Your task to perform on an android device: Search for "dell xps" on costco.com, select the first entry, add it to the cart, then select checkout. Image 0: 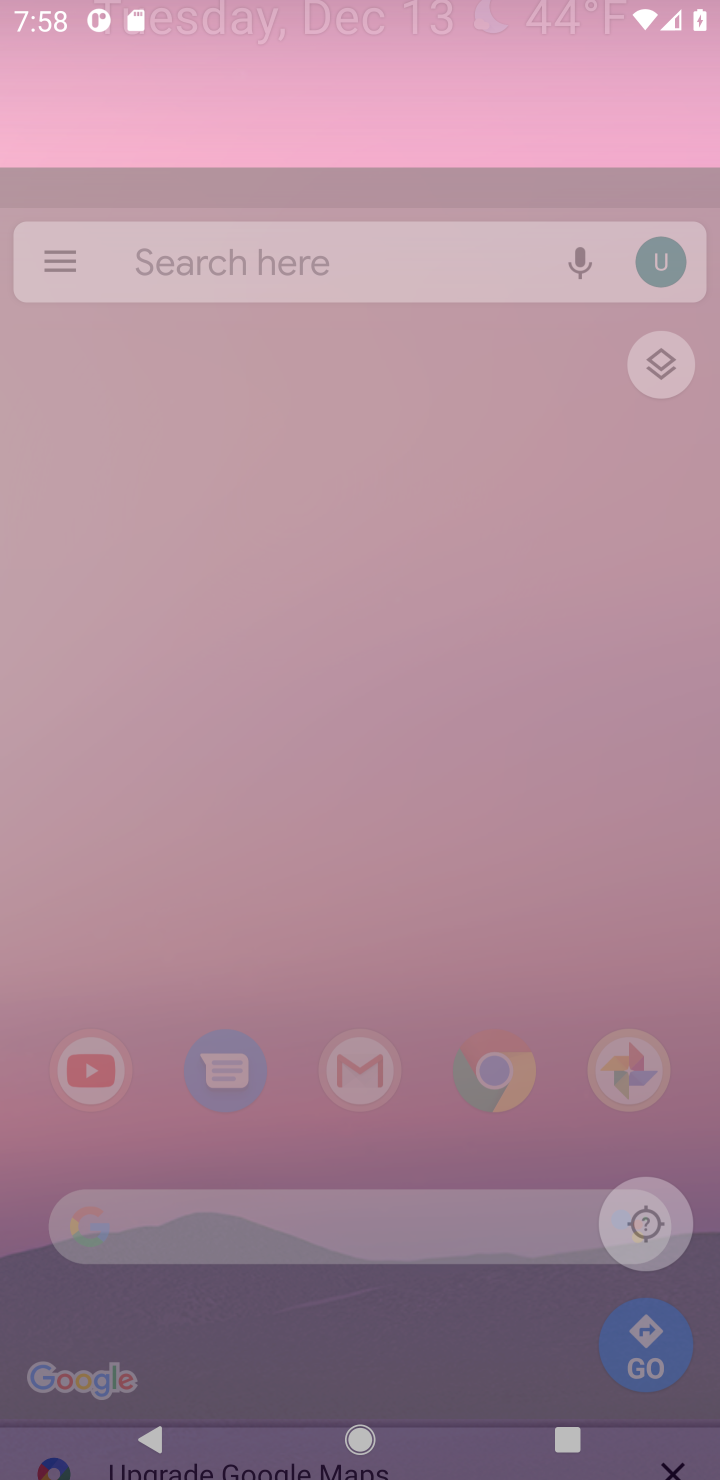
Step 0: click (496, 1211)
Your task to perform on an android device: Search for "dell xps" on costco.com, select the first entry, add it to the cart, then select checkout. Image 1: 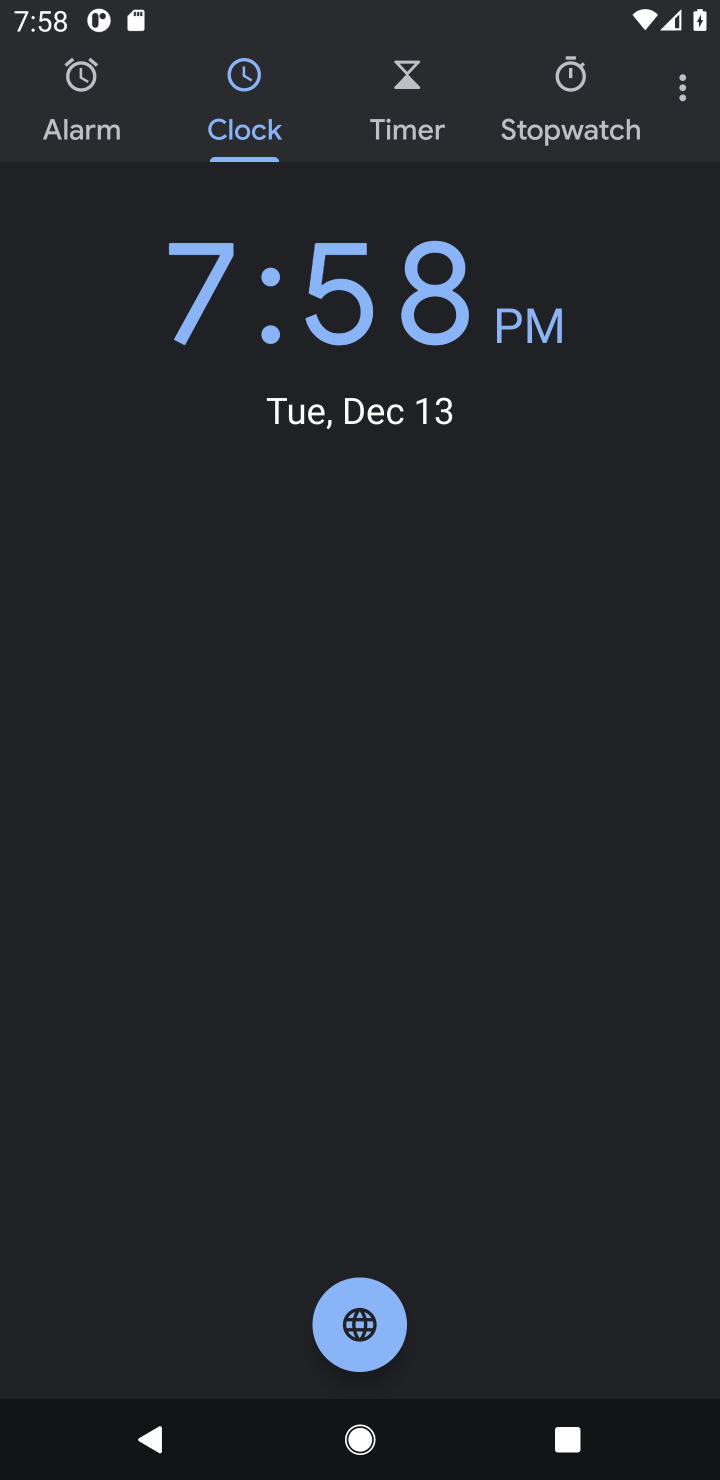
Step 1: press home button
Your task to perform on an android device: Search for "dell xps" on costco.com, select the first entry, add it to the cart, then select checkout. Image 2: 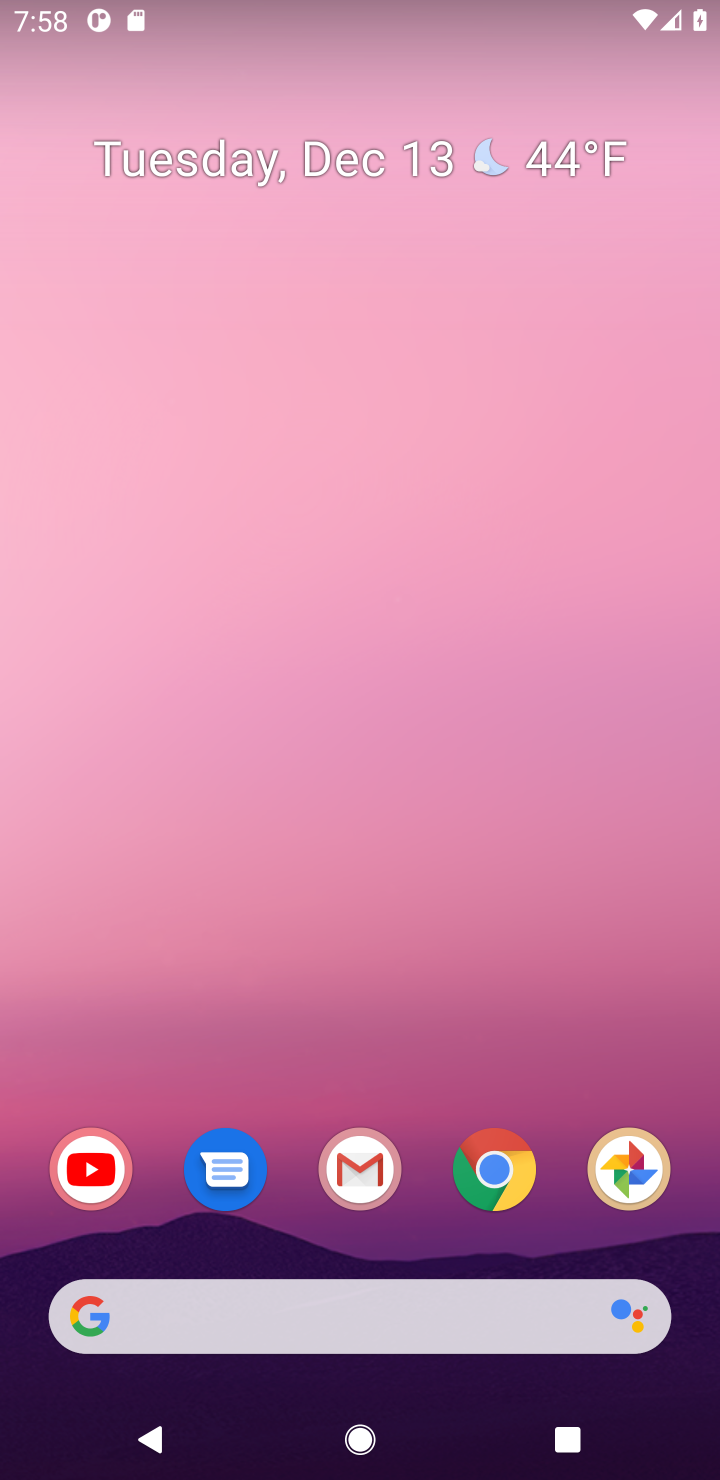
Step 2: click (497, 1156)
Your task to perform on an android device: Search for "dell xps" on costco.com, select the first entry, add it to the cart, then select checkout. Image 3: 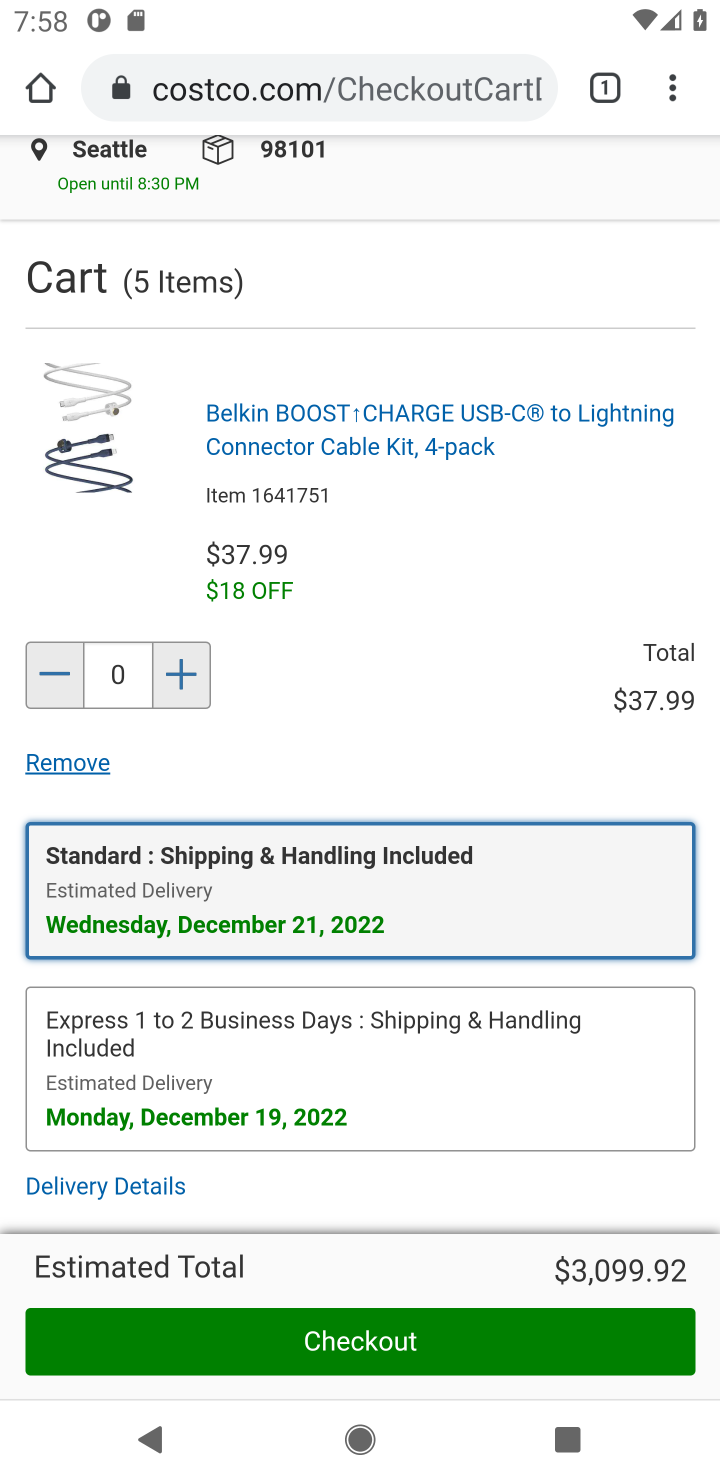
Step 3: click (60, 107)
Your task to perform on an android device: Search for "dell xps" on costco.com, select the first entry, add it to the cart, then select checkout. Image 4: 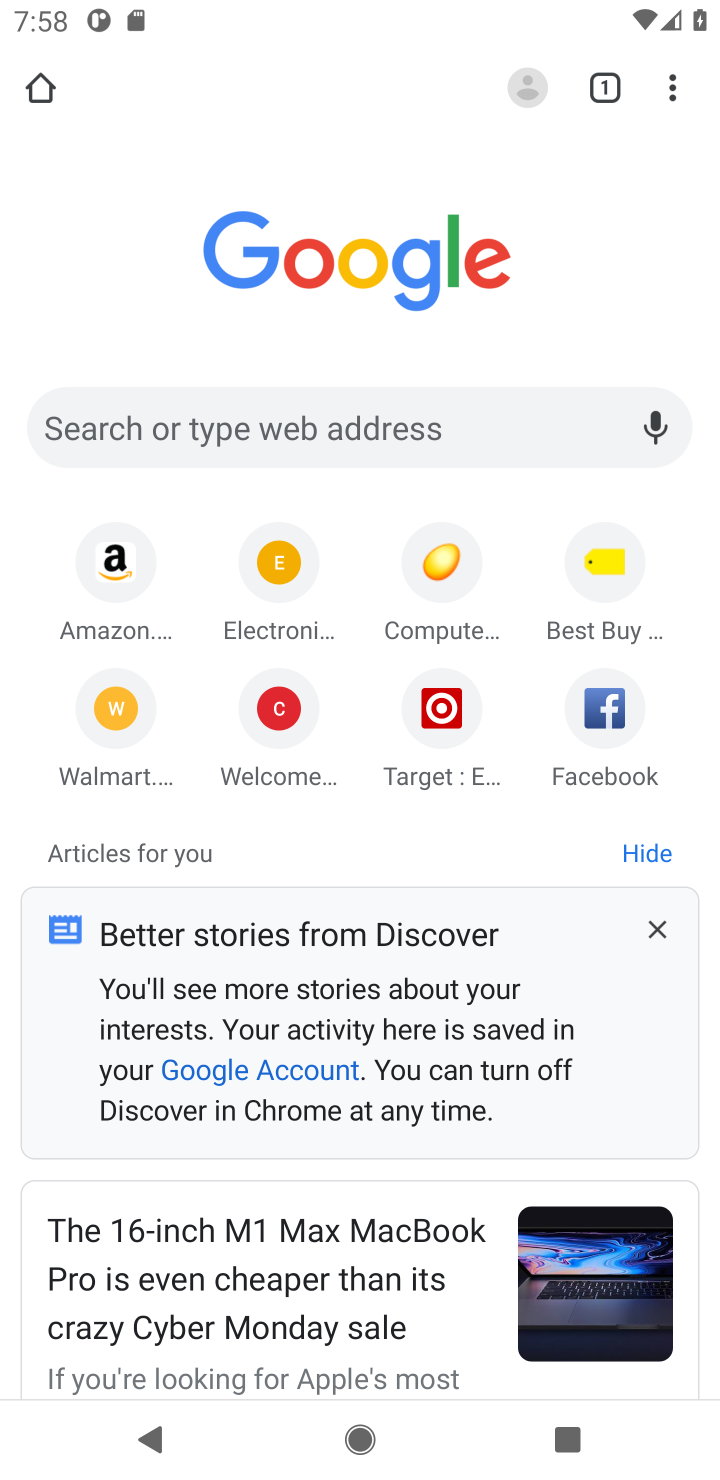
Step 4: click (307, 444)
Your task to perform on an android device: Search for "dell xps" on costco.com, select the first entry, add it to the cart, then select checkout. Image 5: 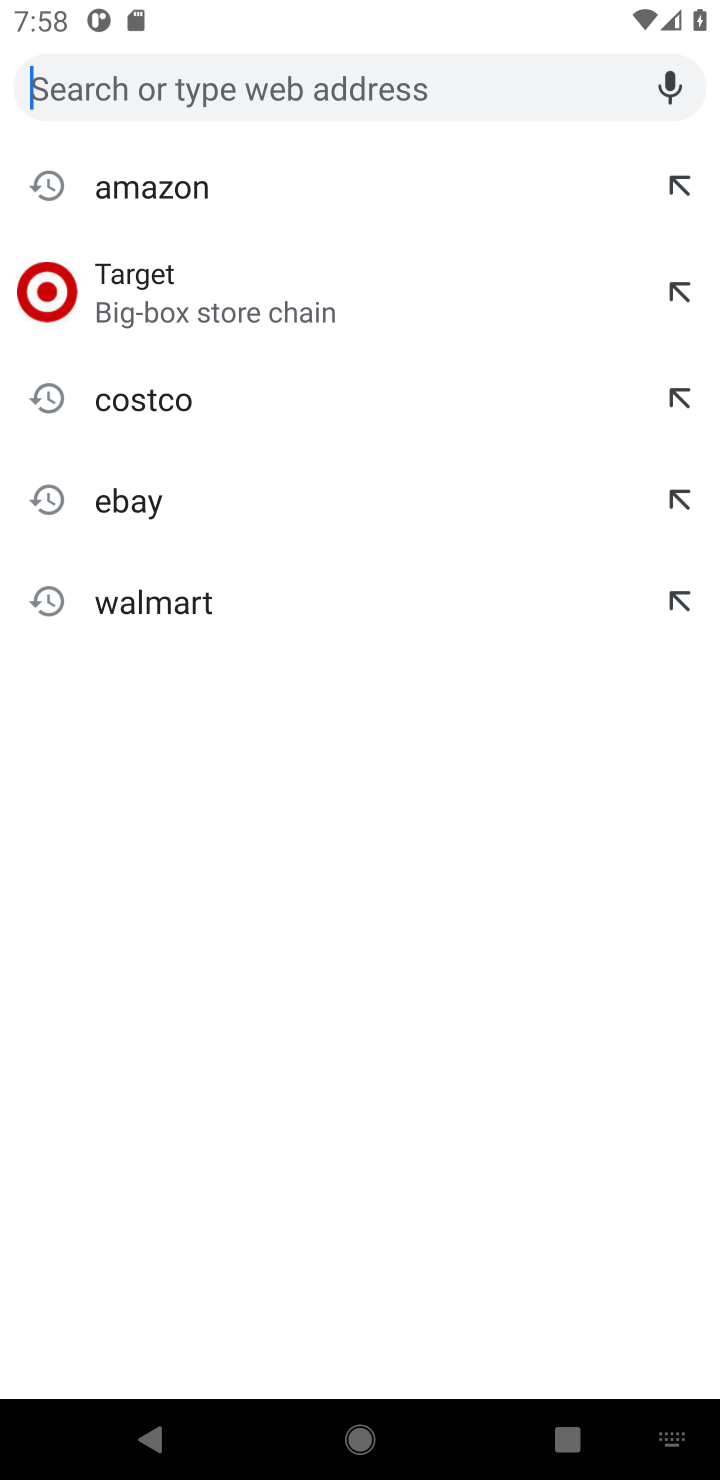
Step 5: click (144, 396)
Your task to perform on an android device: Search for "dell xps" on costco.com, select the first entry, add it to the cart, then select checkout. Image 6: 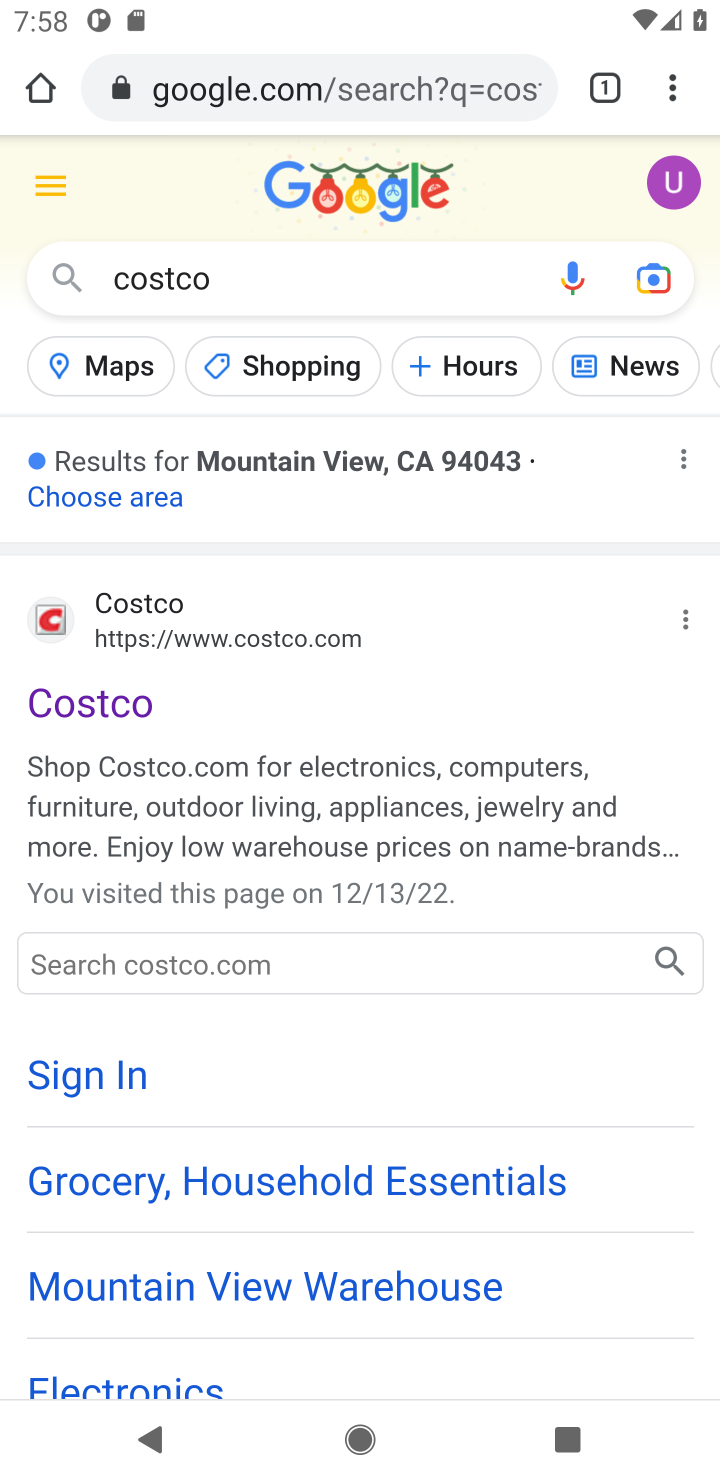
Step 6: click (137, 694)
Your task to perform on an android device: Search for "dell xps" on costco.com, select the first entry, add it to the cart, then select checkout. Image 7: 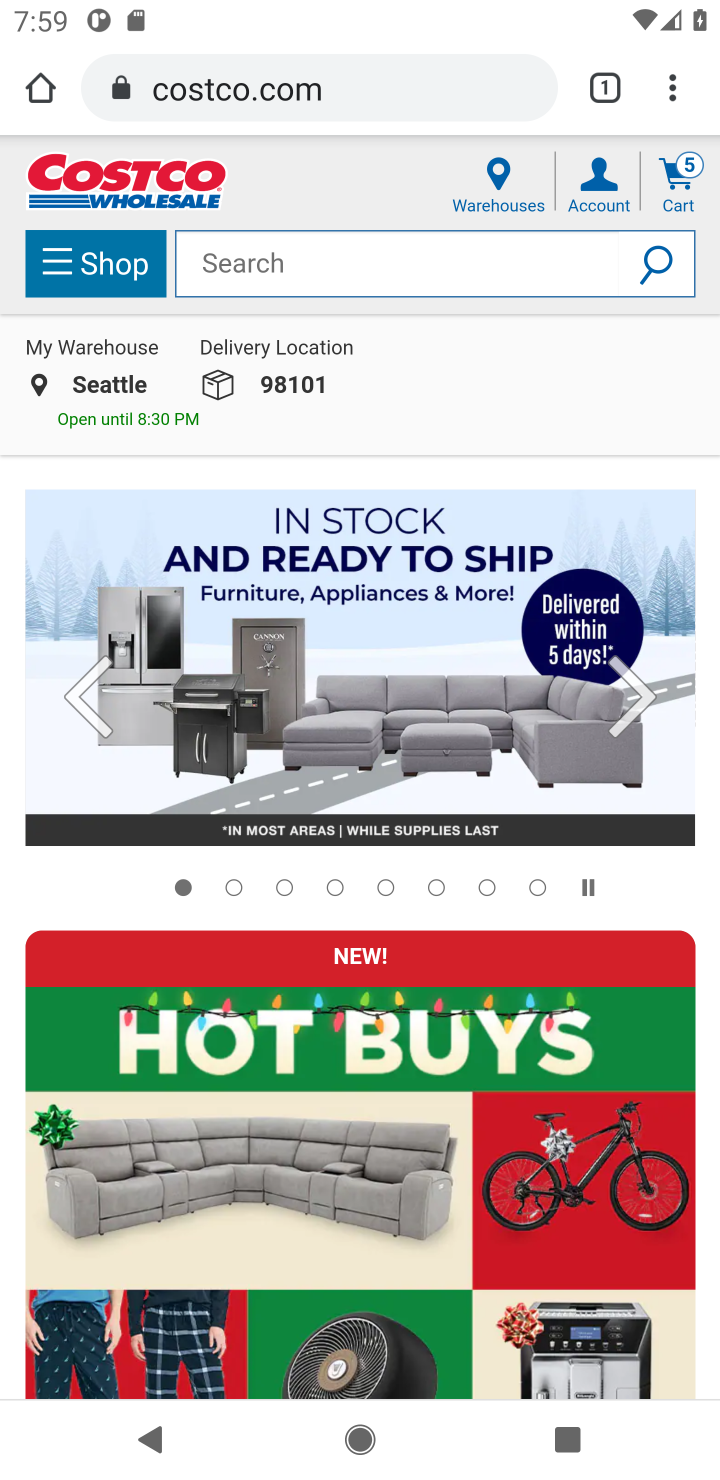
Step 7: click (300, 285)
Your task to perform on an android device: Search for "dell xps" on costco.com, select the first entry, add it to the cart, then select checkout. Image 8: 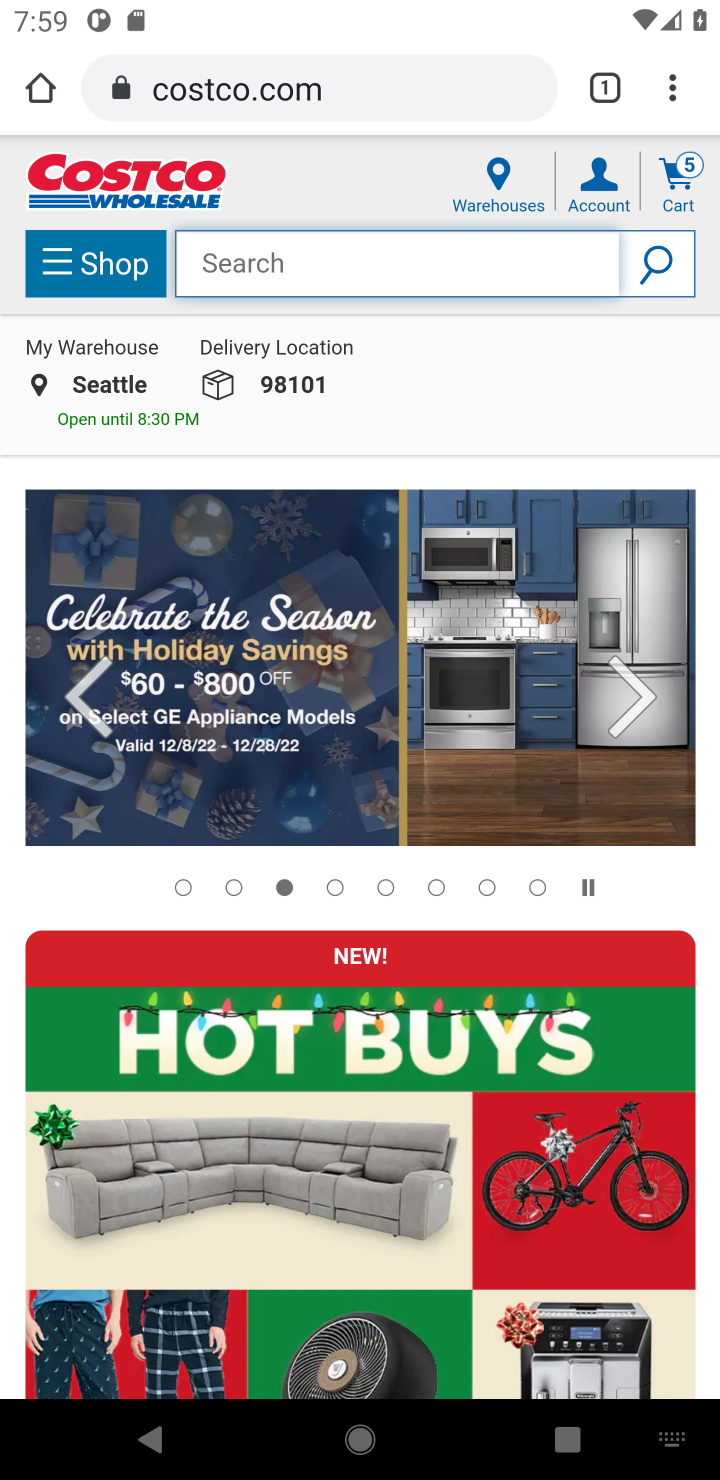
Step 8: type "dell xps"
Your task to perform on an android device: Search for "dell xps" on costco.com, select the first entry, add it to the cart, then select checkout. Image 9: 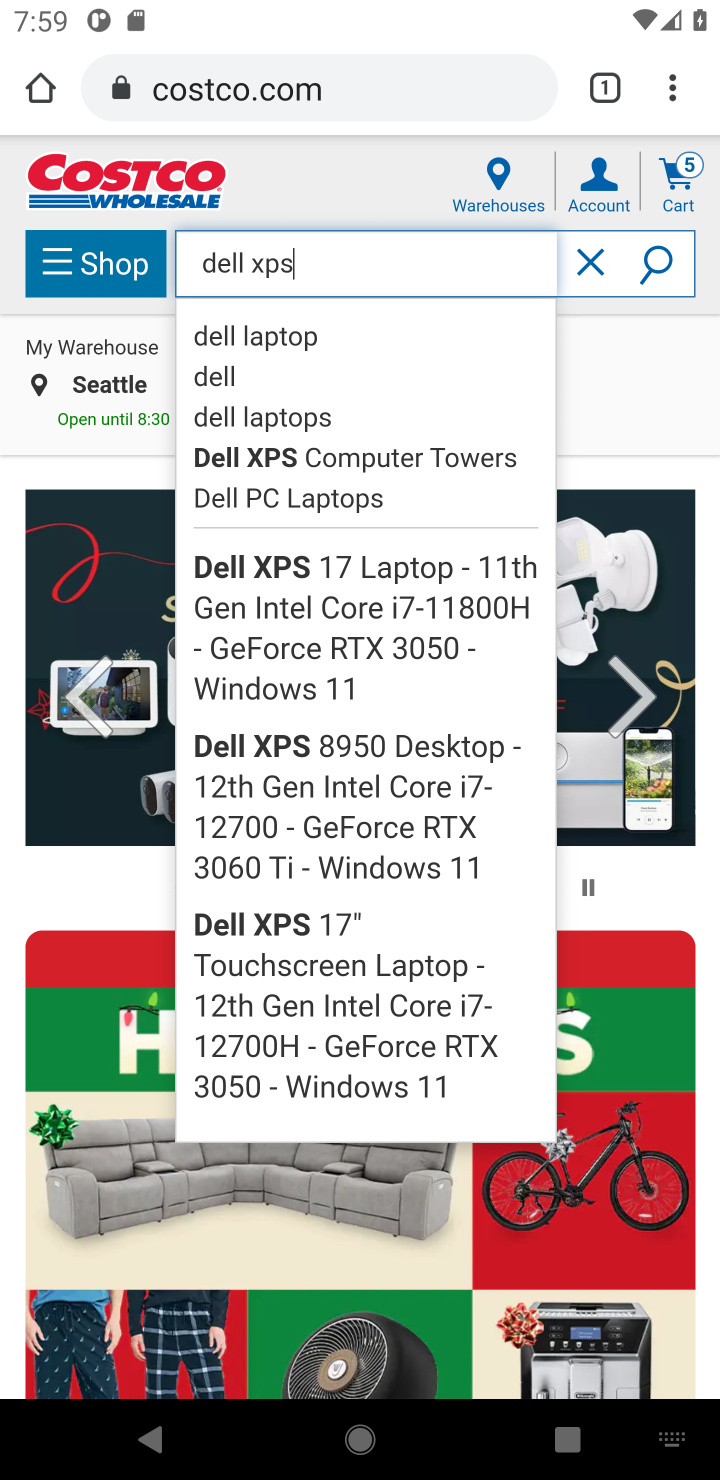
Step 9: click (682, 270)
Your task to perform on an android device: Search for "dell xps" on costco.com, select the first entry, add it to the cart, then select checkout. Image 10: 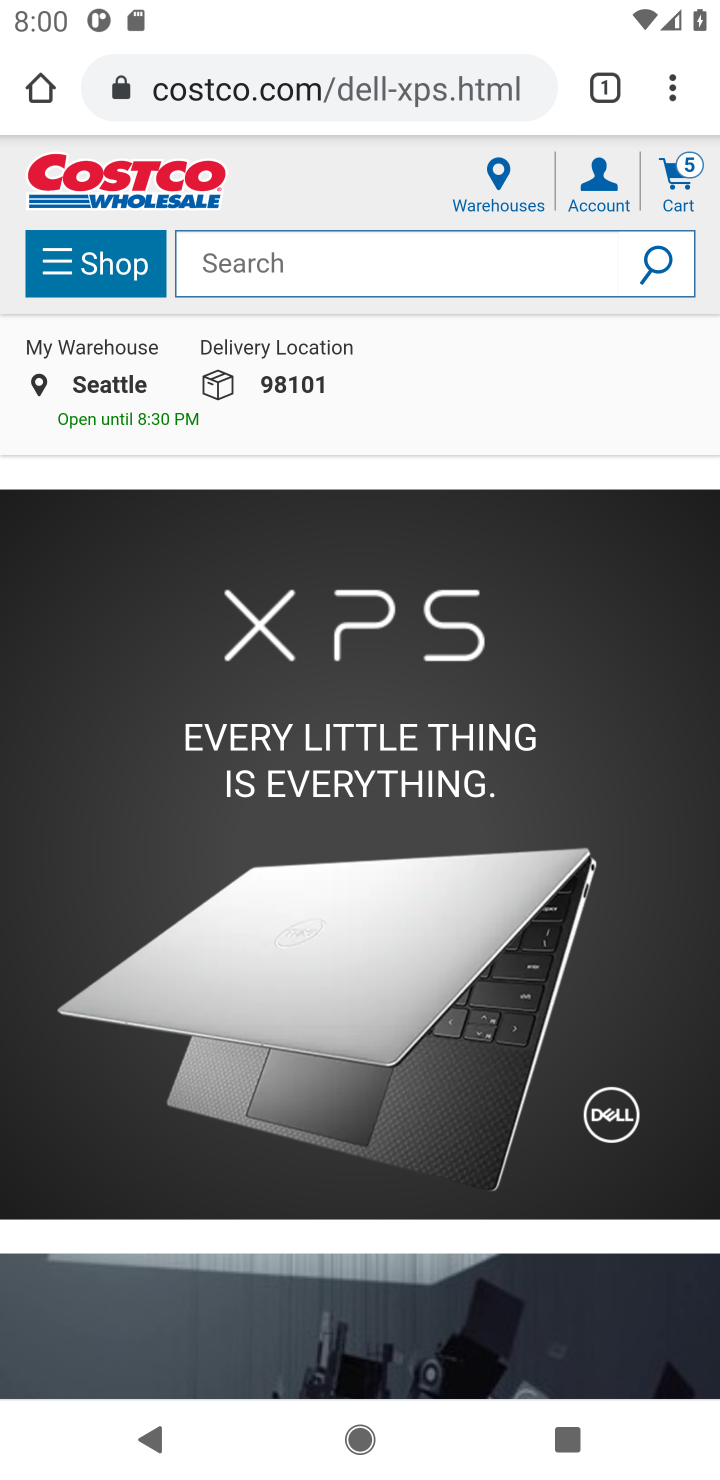
Step 10: click (286, 280)
Your task to perform on an android device: Search for "dell xps" on costco.com, select the first entry, add it to the cart, then select checkout. Image 11: 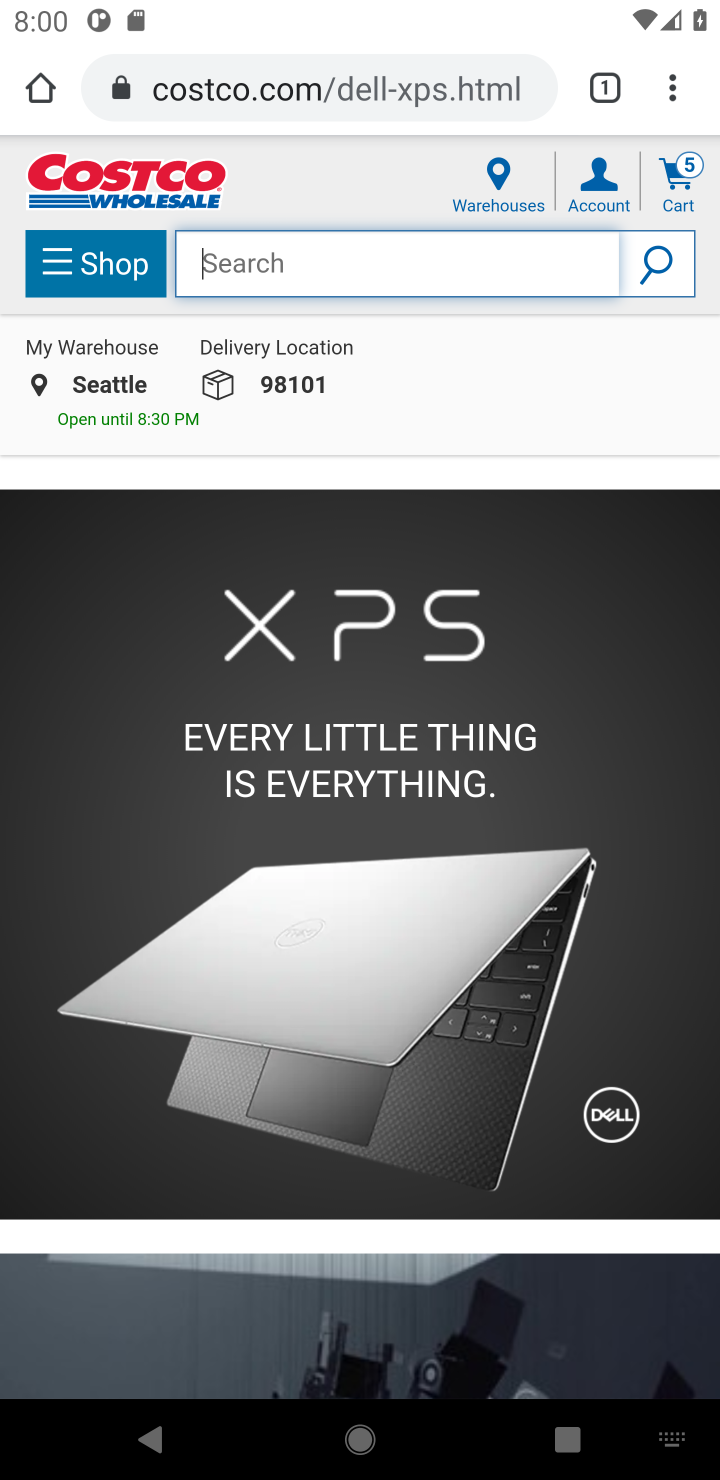
Step 11: task complete